Your task to perform on an android device: Play the last video I watched on Youtube Image 0: 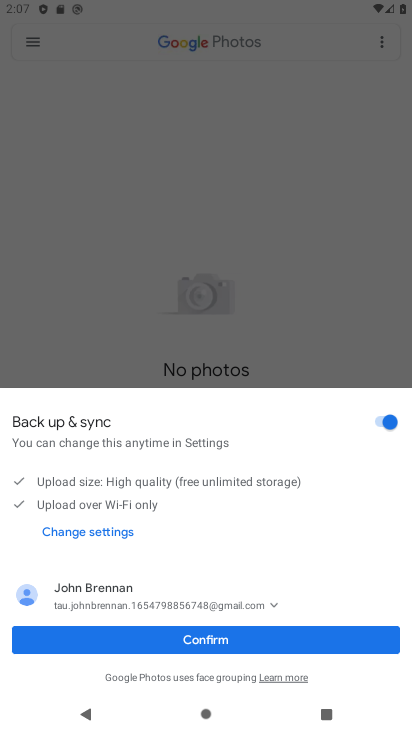
Step 0: press home button
Your task to perform on an android device: Play the last video I watched on Youtube Image 1: 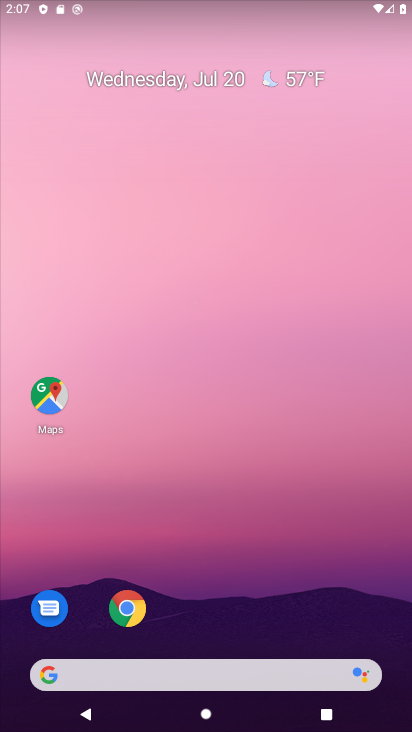
Step 1: drag from (259, 633) to (274, 82)
Your task to perform on an android device: Play the last video I watched on Youtube Image 2: 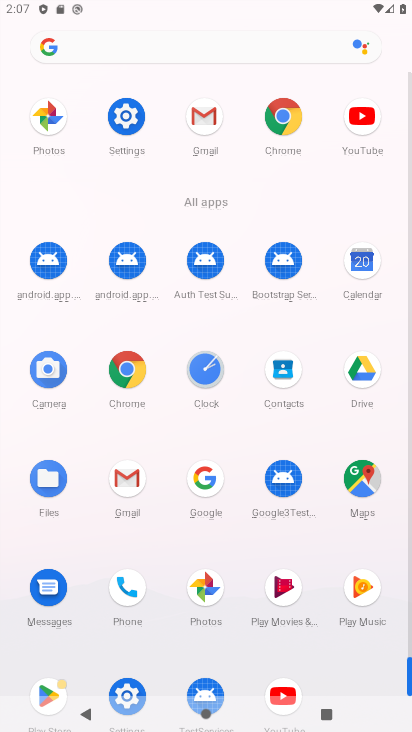
Step 2: click (359, 116)
Your task to perform on an android device: Play the last video I watched on Youtube Image 3: 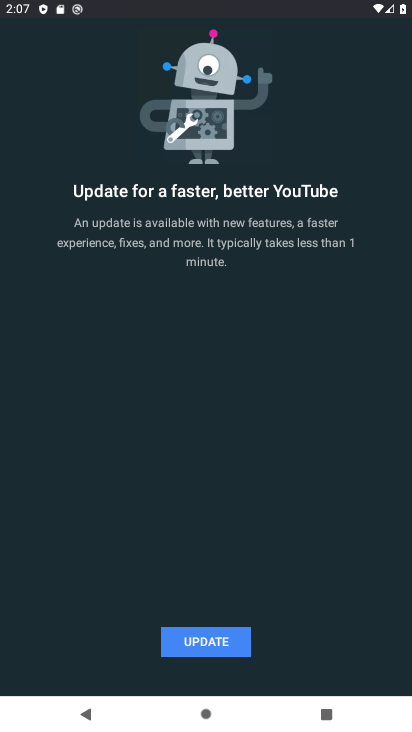
Step 3: click (192, 635)
Your task to perform on an android device: Play the last video I watched on Youtube Image 4: 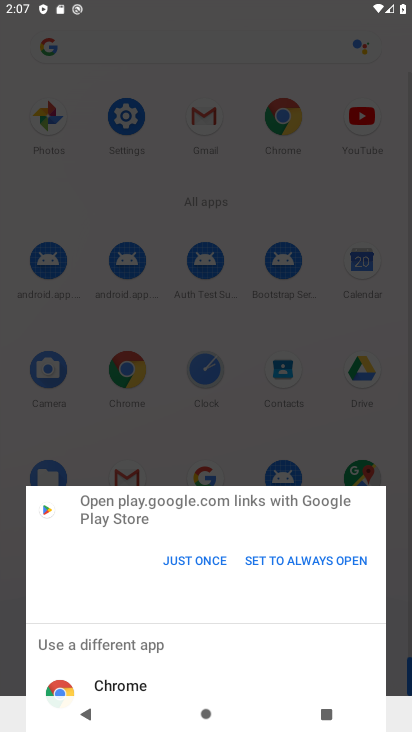
Step 4: click (175, 556)
Your task to perform on an android device: Play the last video I watched on Youtube Image 5: 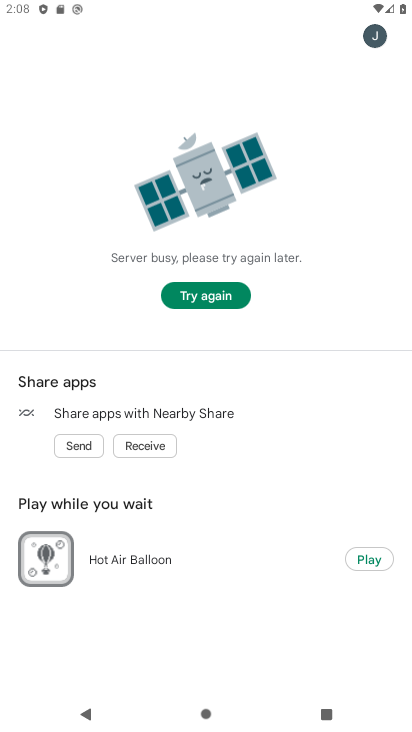
Step 5: task complete